Your task to perform on an android device: check storage Image 0: 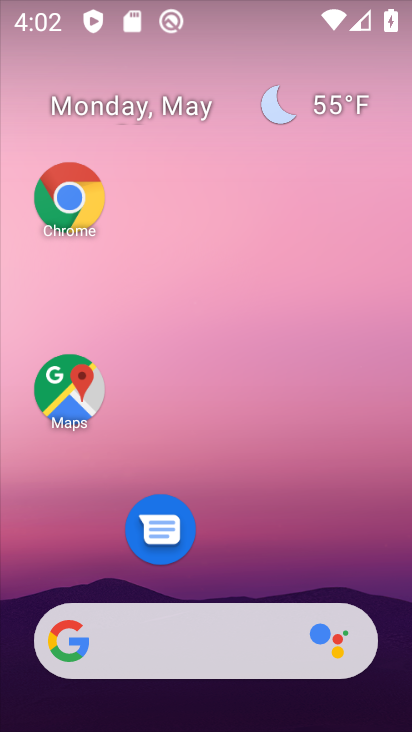
Step 0: drag from (202, 604) to (306, 120)
Your task to perform on an android device: check storage Image 1: 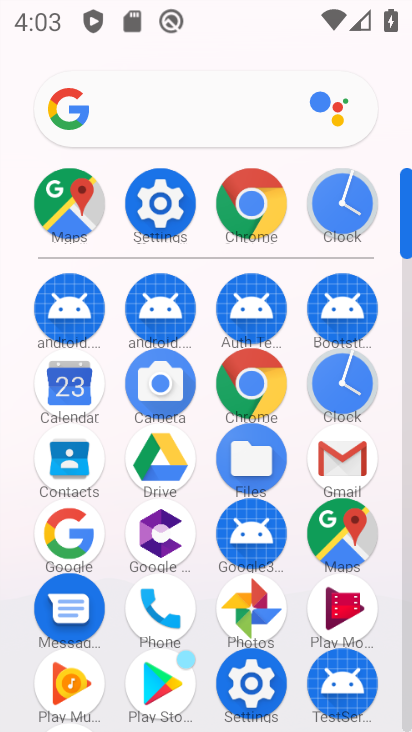
Step 1: click (155, 213)
Your task to perform on an android device: check storage Image 2: 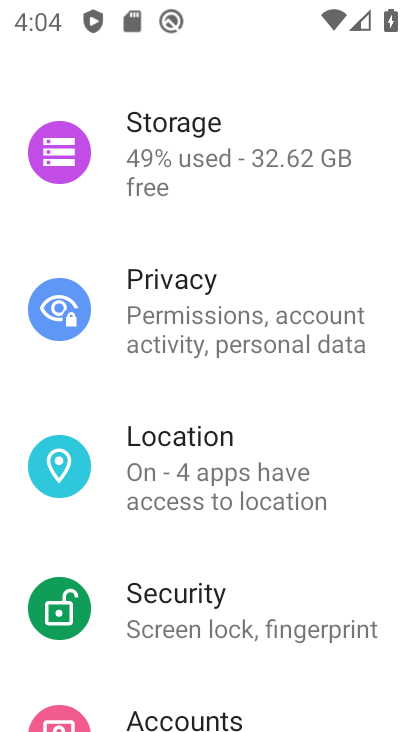
Step 2: drag from (226, 496) to (268, 191)
Your task to perform on an android device: check storage Image 3: 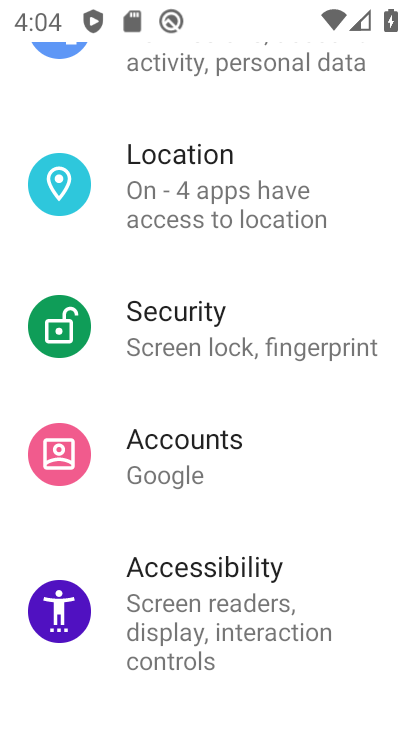
Step 3: drag from (257, 320) to (202, 707)
Your task to perform on an android device: check storage Image 4: 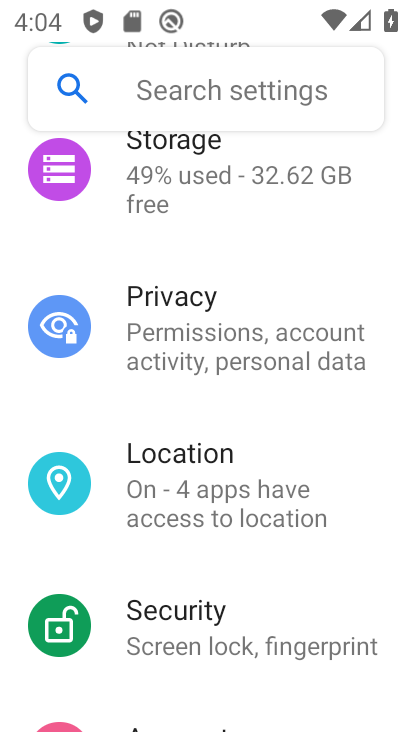
Step 4: click (237, 191)
Your task to perform on an android device: check storage Image 5: 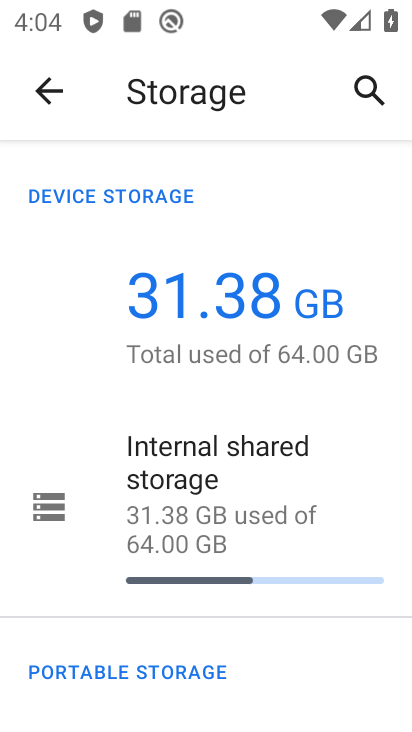
Step 5: click (221, 504)
Your task to perform on an android device: check storage Image 6: 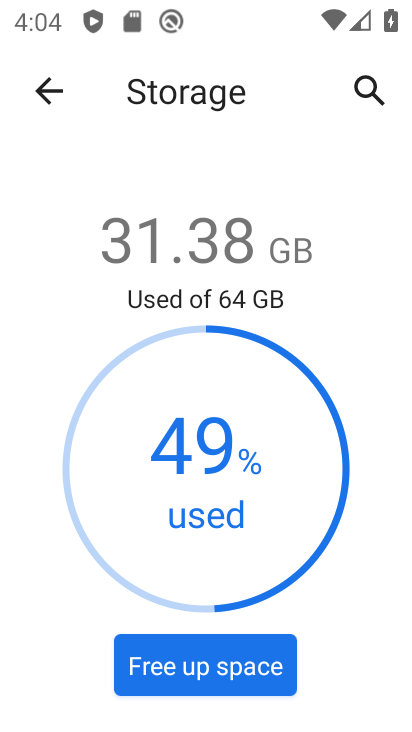
Step 6: task complete